Your task to perform on an android device: Search for Mexican restaurants on Maps Image 0: 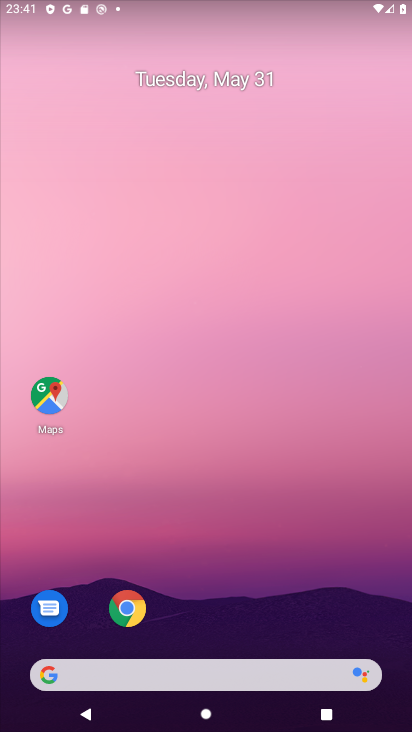
Step 0: click (50, 390)
Your task to perform on an android device: Search for Mexican restaurants on Maps Image 1: 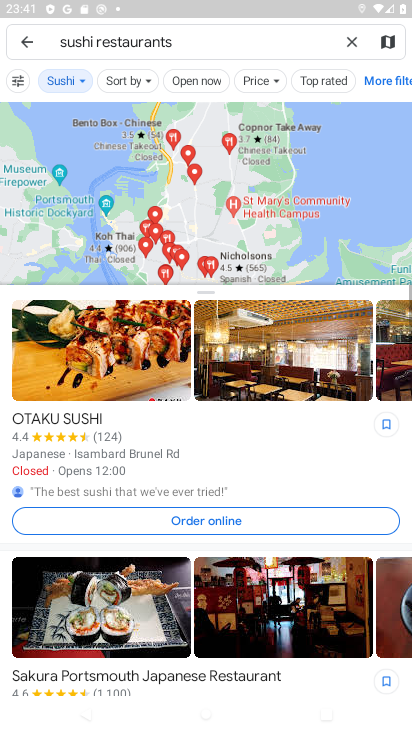
Step 1: click (346, 40)
Your task to perform on an android device: Search for Mexican restaurants on Maps Image 2: 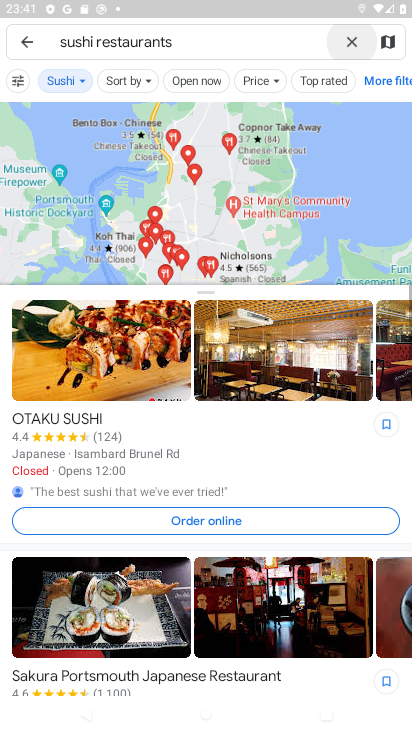
Step 2: click (273, 38)
Your task to perform on an android device: Search for Mexican restaurants on Maps Image 3: 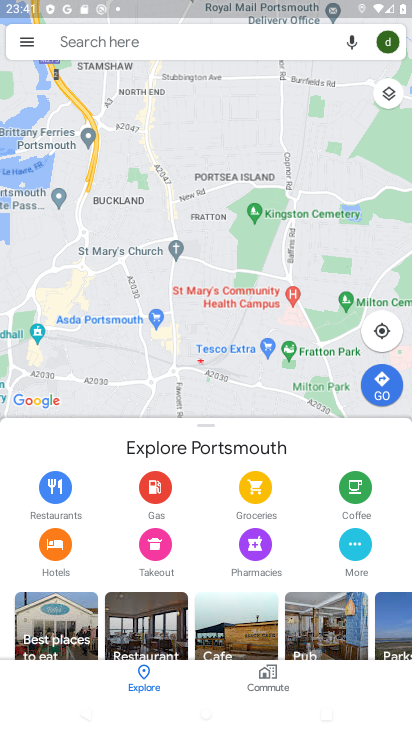
Step 3: click (276, 39)
Your task to perform on an android device: Search for Mexican restaurants on Maps Image 4: 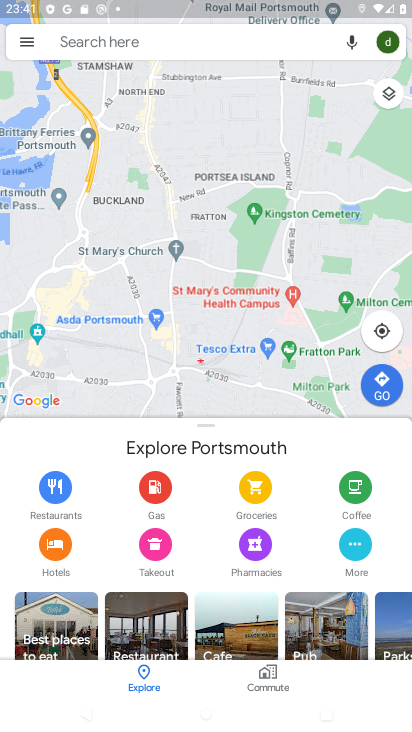
Step 4: click (276, 39)
Your task to perform on an android device: Search for Mexican restaurants on Maps Image 5: 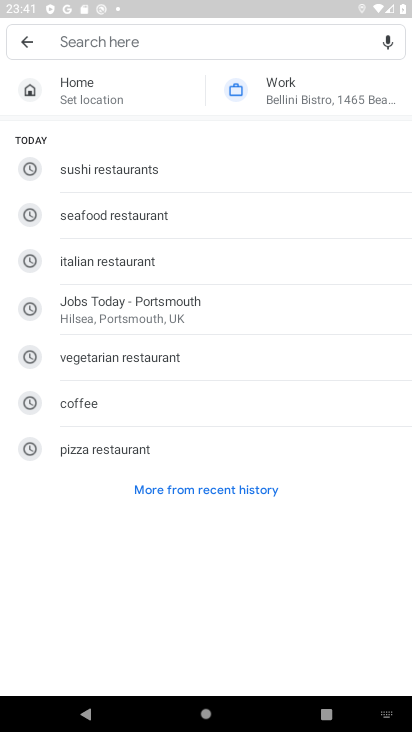
Step 5: type " Mexican restaurants"
Your task to perform on an android device: Search for Mexican restaurants on Maps Image 6: 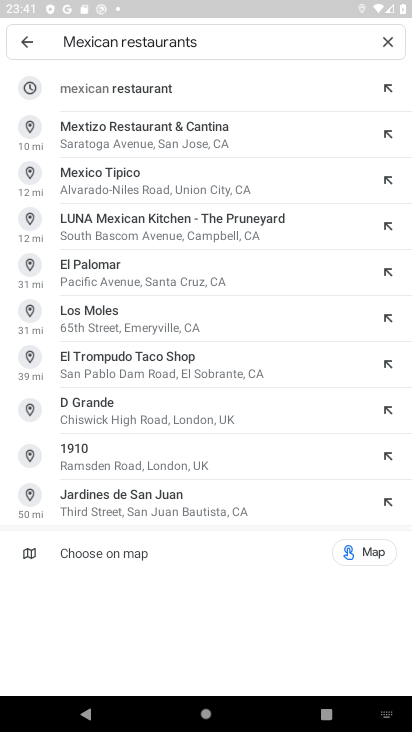
Step 6: click (118, 66)
Your task to perform on an android device: Search for Mexican restaurants on Maps Image 7: 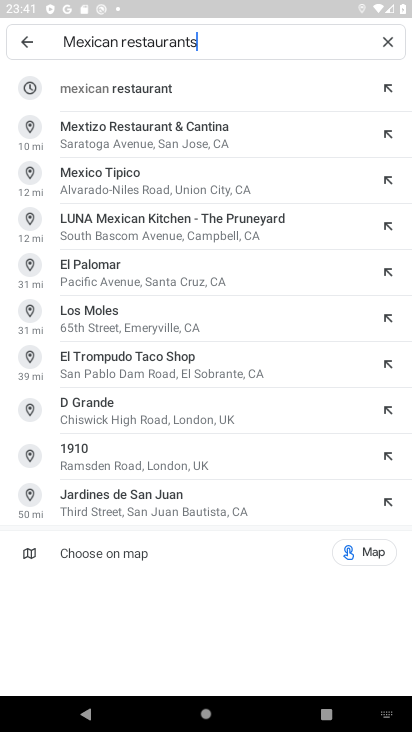
Step 7: click (316, 88)
Your task to perform on an android device: Search for Mexican restaurants on Maps Image 8: 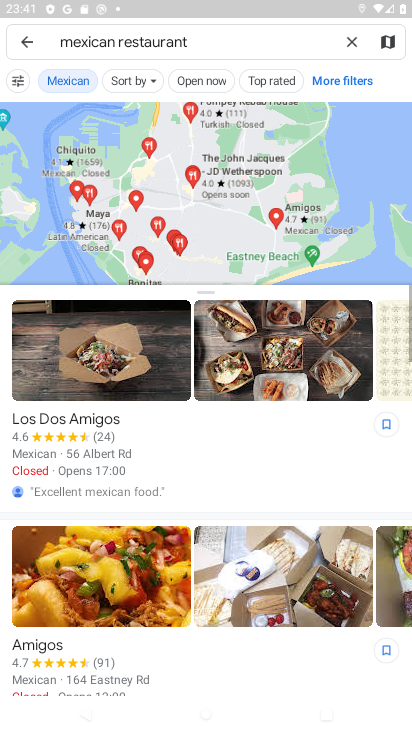
Step 8: task complete